Your task to perform on an android device: Open network settings Image 0: 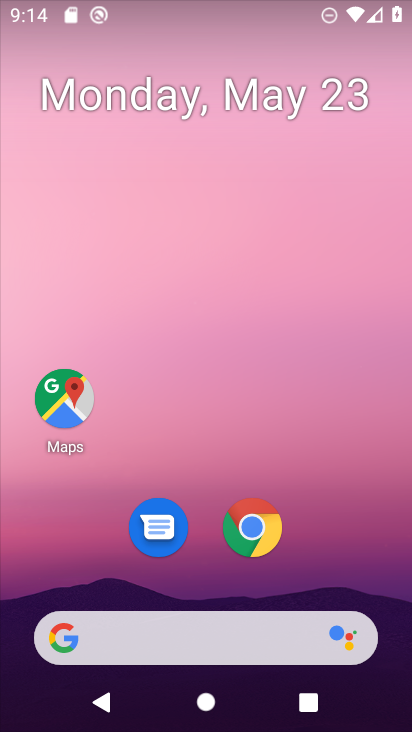
Step 0: drag from (271, 426) to (277, 18)
Your task to perform on an android device: Open network settings Image 1: 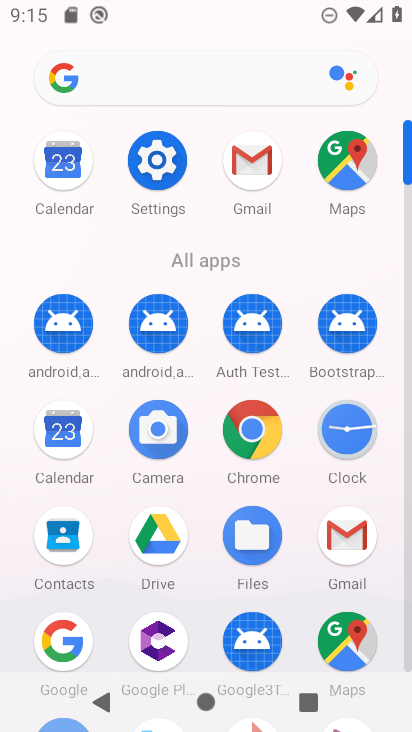
Step 1: click (162, 146)
Your task to perform on an android device: Open network settings Image 2: 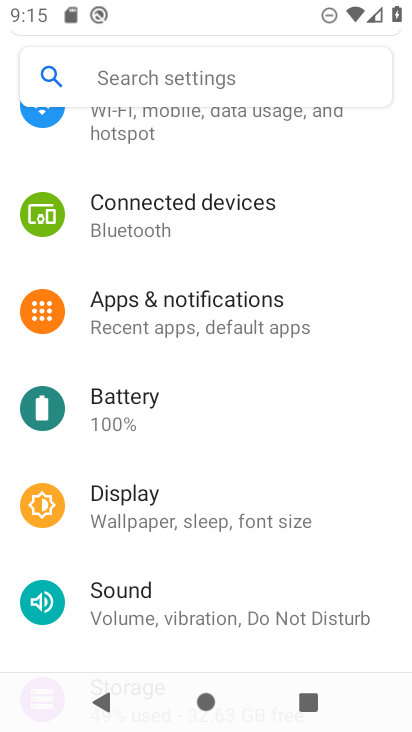
Step 2: drag from (225, 166) to (248, 338)
Your task to perform on an android device: Open network settings Image 3: 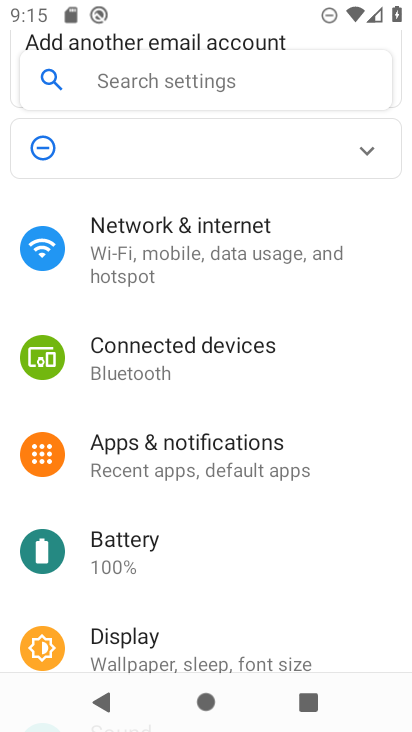
Step 3: click (247, 238)
Your task to perform on an android device: Open network settings Image 4: 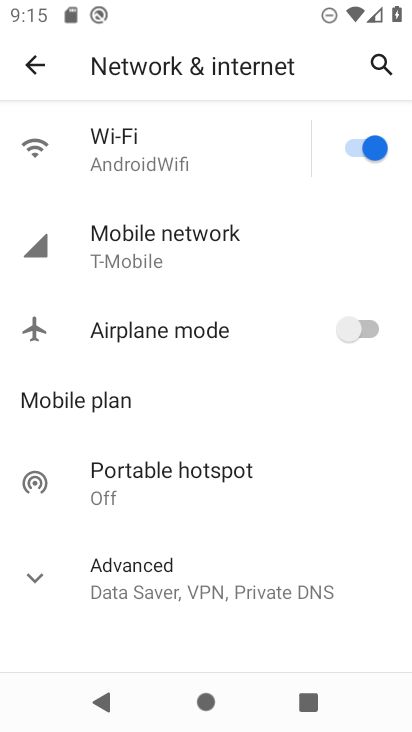
Step 4: task complete